Your task to perform on an android device: turn off data saver in the chrome app Image 0: 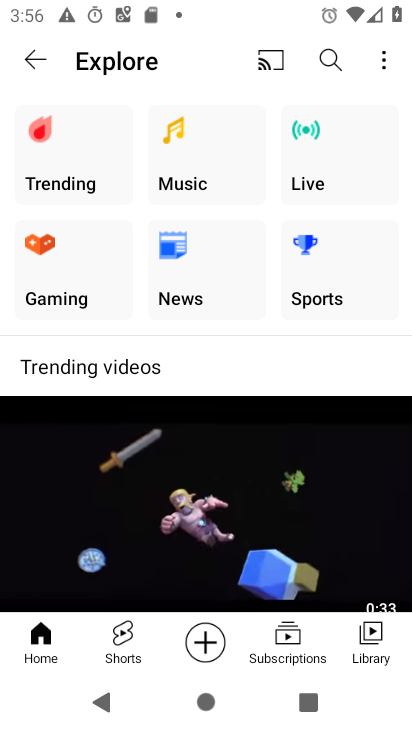
Step 0: press home button
Your task to perform on an android device: turn off data saver in the chrome app Image 1: 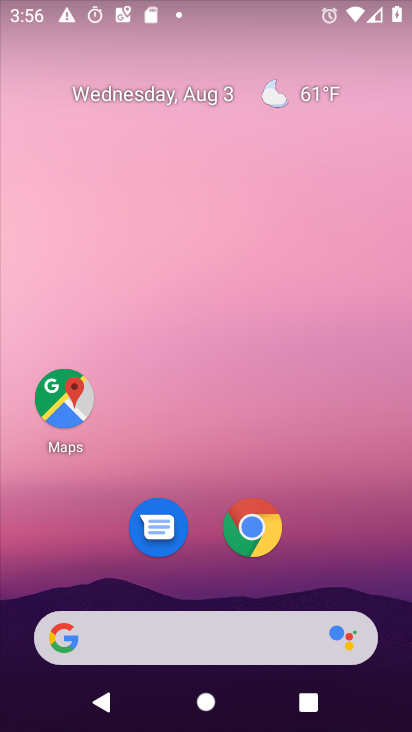
Step 1: drag from (387, 528) to (402, 74)
Your task to perform on an android device: turn off data saver in the chrome app Image 2: 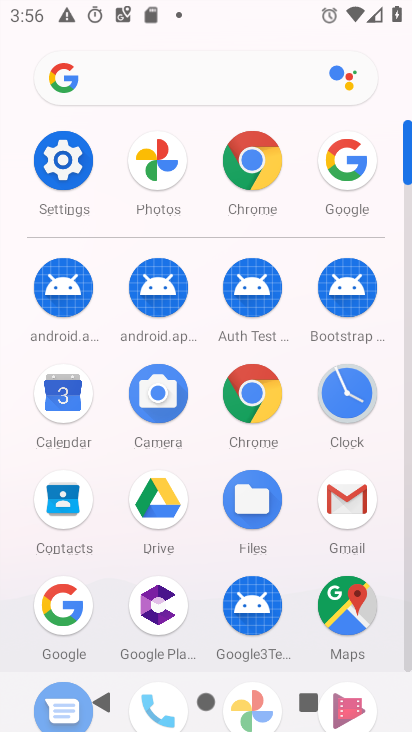
Step 2: click (251, 156)
Your task to perform on an android device: turn off data saver in the chrome app Image 3: 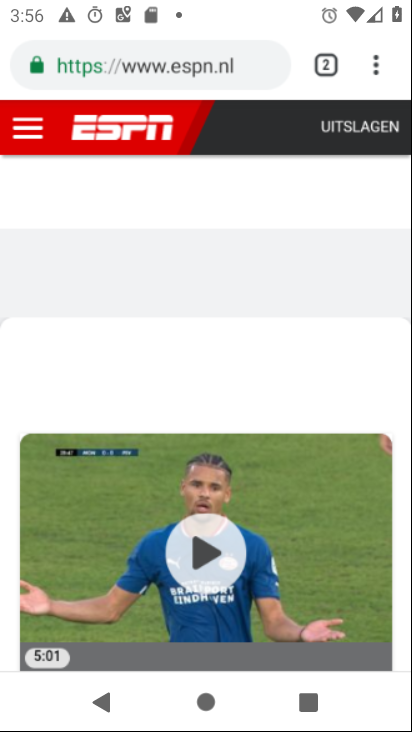
Step 3: drag from (375, 53) to (191, 573)
Your task to perform on an android device: turn off data saver in the chrome app Image 4: 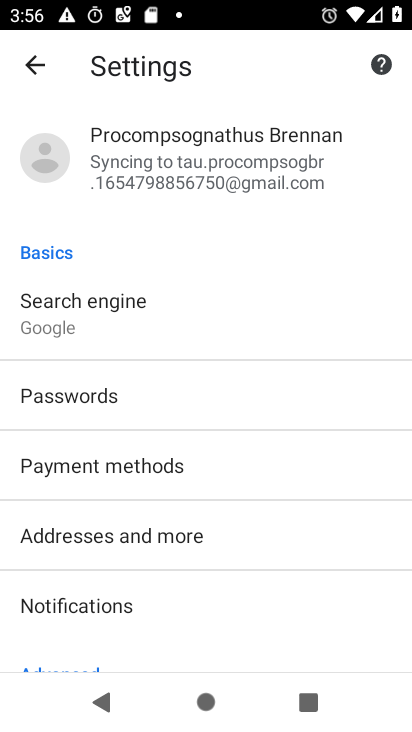
Step 4: drag from (266, 623) to (279, 151)
Your task to perform on an android device: turn off data saver in the chrome app Image 5: 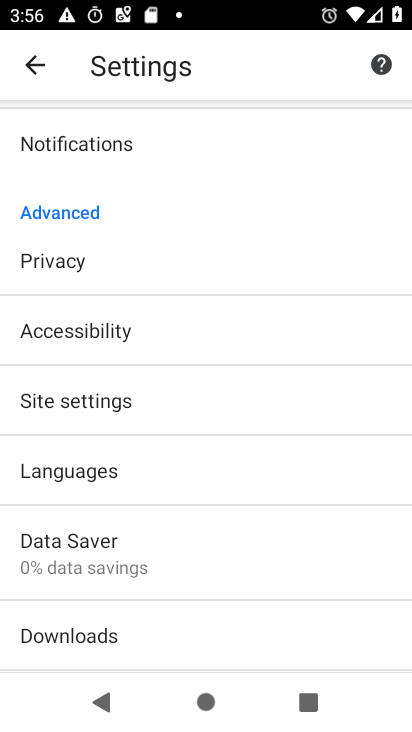
Step 5: click (92, 541)
Your task to perform on an android device: turn off data saver in the chrome app Image 6: 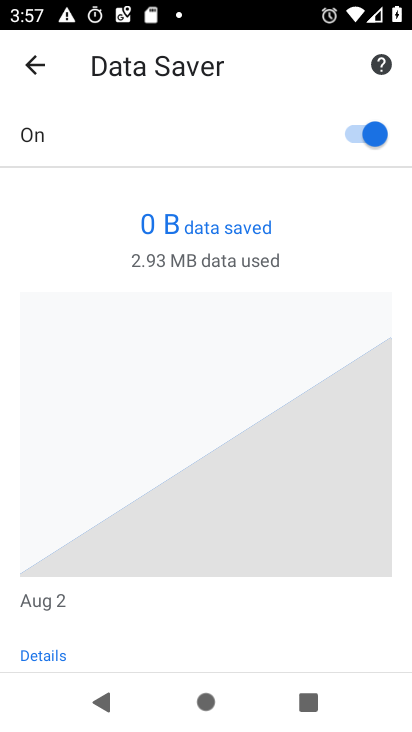
Step 6: click (353, 122)
Your task to perform on an android device: turn off data saver in the chrome app Image 7: 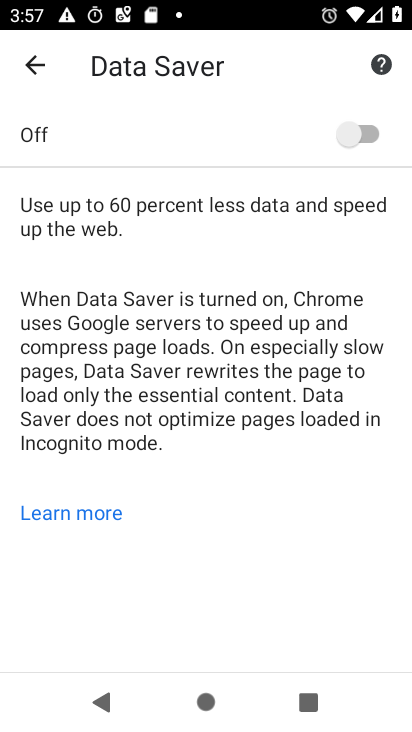
Step 7: task complete